Your task to perform on an android device: visit the assistant section in the google photos Image 0: 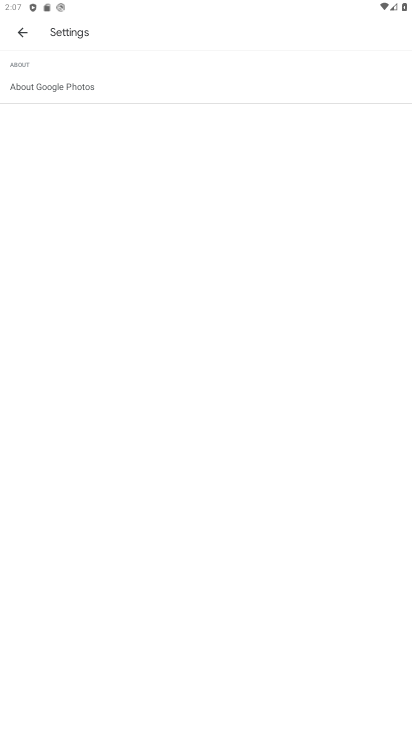
Step 0: press home button
Your task to perform on an android device: visit the assistant section in the google photos Image 1: 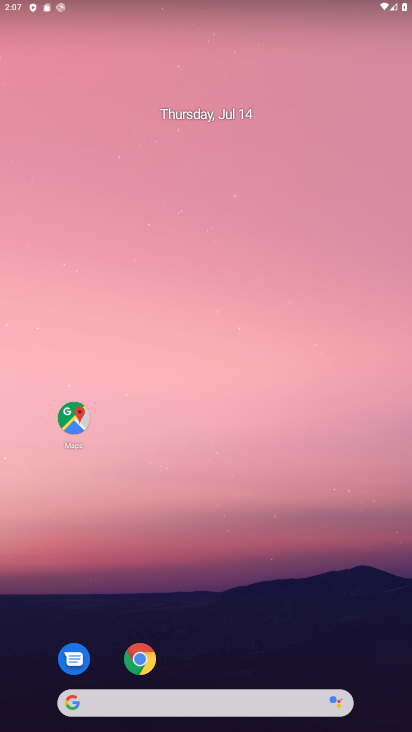
Step 1: press home button
Your task to perform on an android device: visit the assistant section in the google photos Image 2: 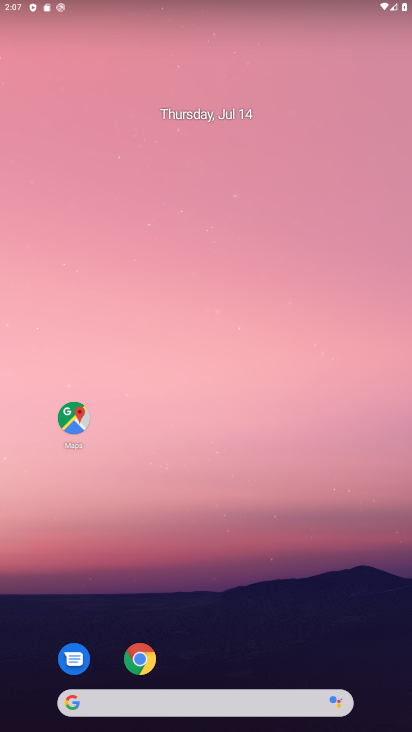
Step 2: drag from (247, 582) to (217, 5)
Your task to perform on an android device: visit the assistant section in the google photos Image 3: 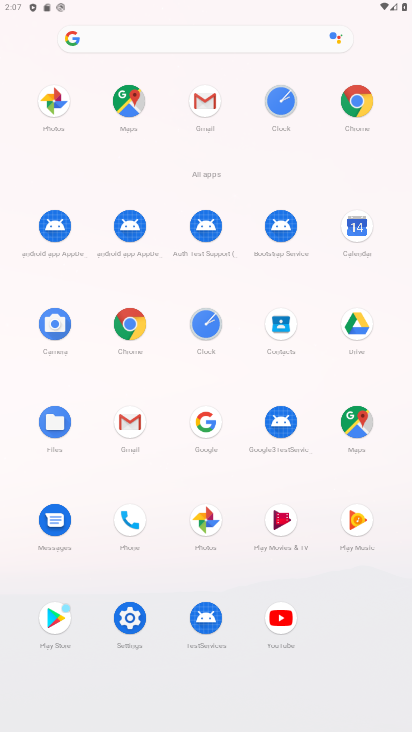
Step 3: click (209, 513)
Your task to perform on an android device: visit the assistant section in the google photos Image 4: 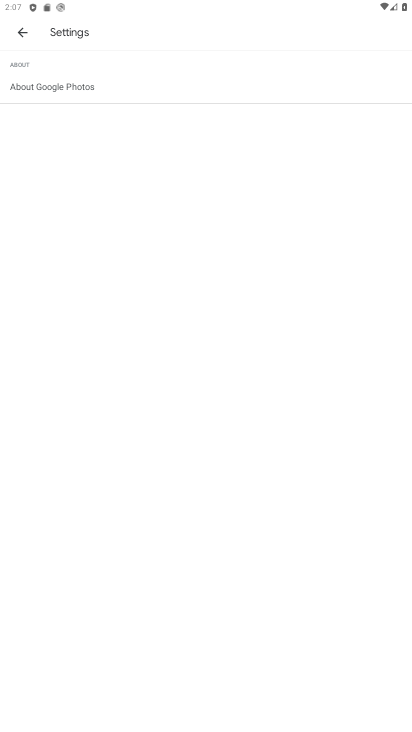
Step 4: click (21, 40)
Your task to perform on an android device: visit the assistant section in the google photos Image 5: 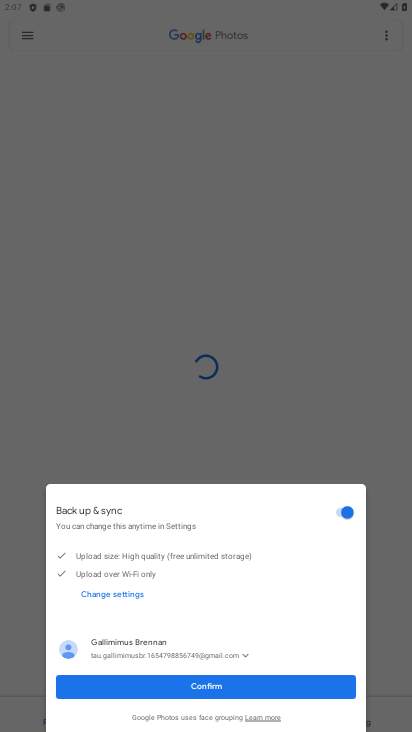
Step 5: click (126, 681)
Your task to perform on an android device: visit the assistant section in the google photos Image 6: 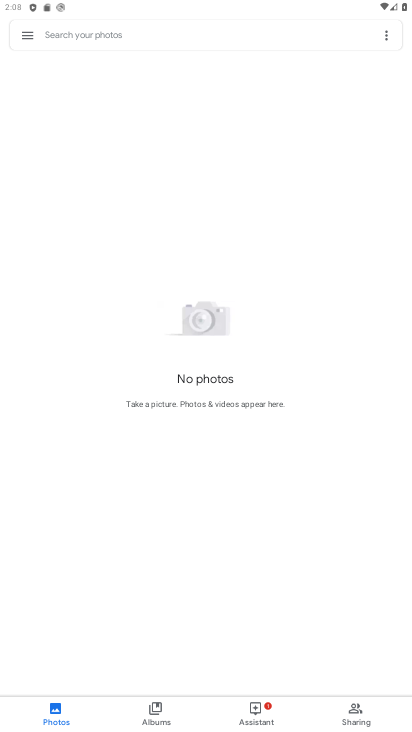
Step 6: click (247, 710)
Your task to perform on an android device: visit the assistant section in the google photos Image 7: 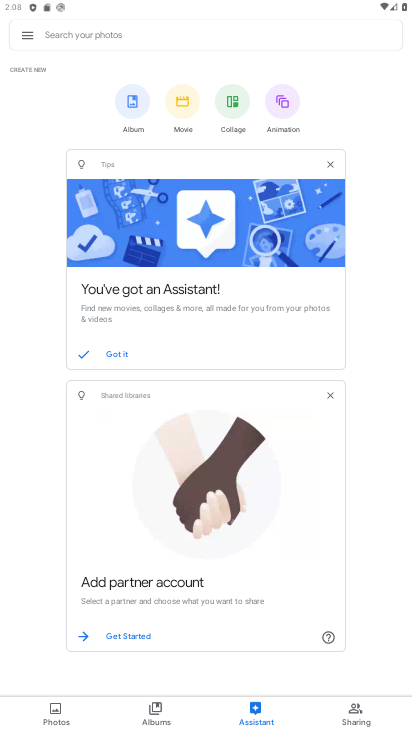
Step 7: task complete